Your task to perform on an android device: Search for the best running shoes on Nike. Image 0: 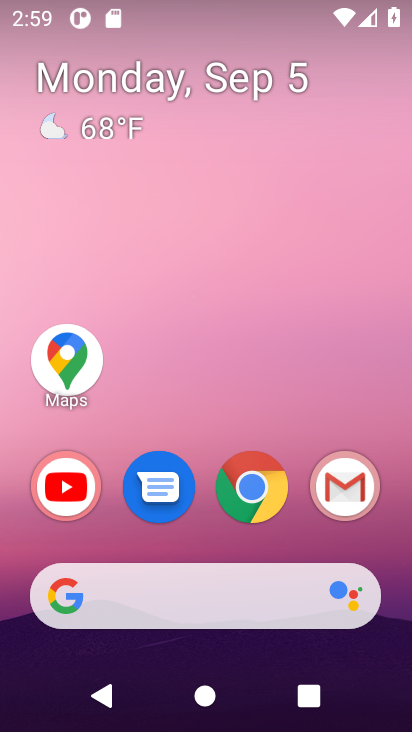
Step 0: click (232, 494)
Your task to perform on an android device: Search for the best running shoes on Nike. Image 1: 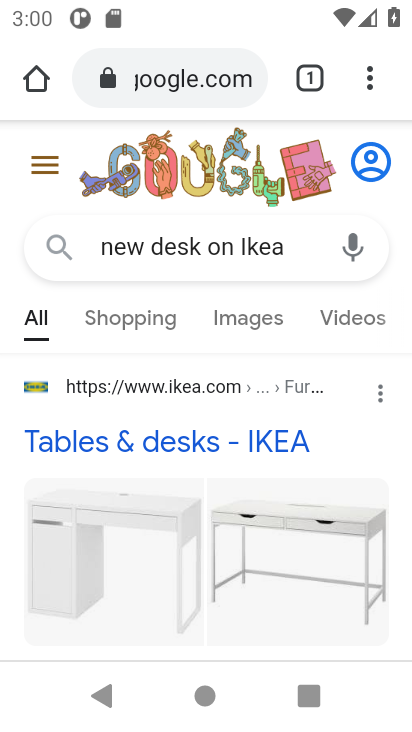
Step 1: click (159, 80)
Your task to perform on an android device: Search for the best running shoes on Nike. Image 2: 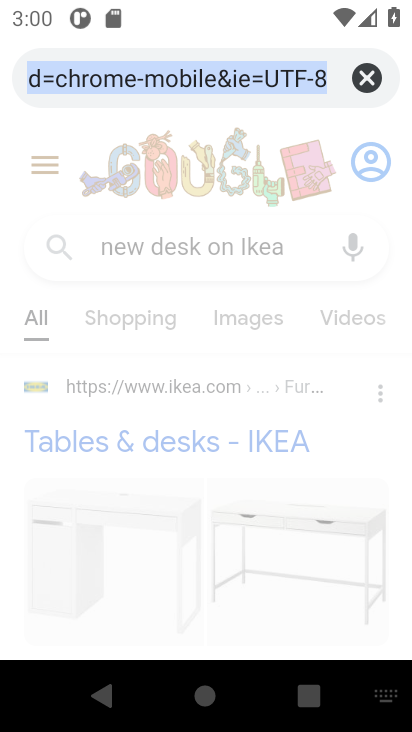
Step 2: click (374, 80)
Your task to perform on an android device: Search for the best running shoes on Nike. Image 3: 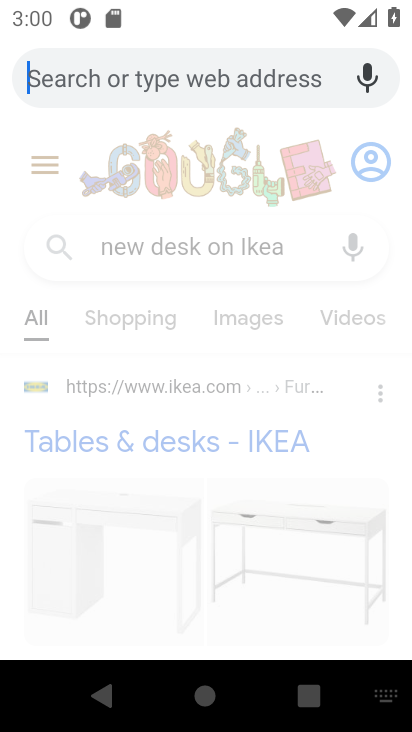
Step 3: type "the best running shoes on Nike."
Your task to perform on an android device: Search for the best running shoes on Nike. Image 4: 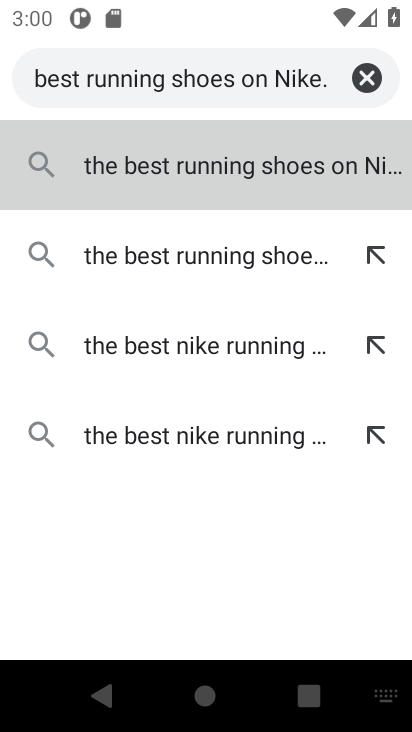
Step 4: click (281, 185)
Your task to perform on an android device: Search for the best running shoes on Nike. Image 5: 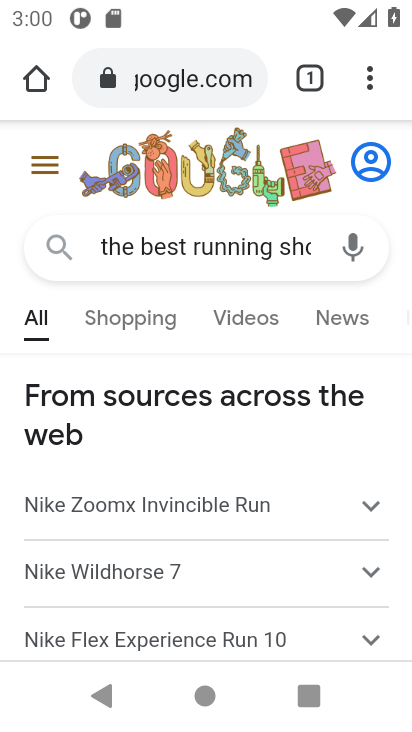
Step 5: task complete